Your task to perform on an android device: Go to display settings Image 0: 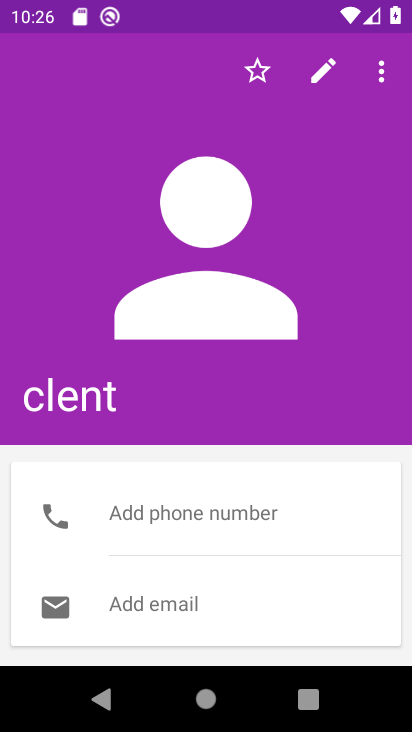
Step 0: press home button
Your task to perform on an android device: Go to display settings Image 1: 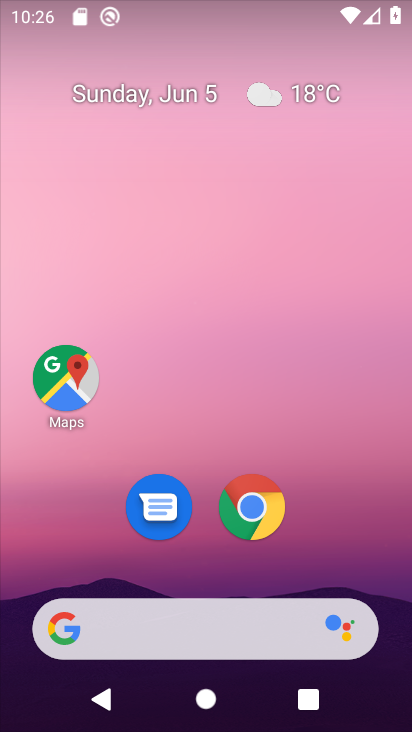
Step 1: drag from (251, 569) to (305, 133)
Your task to perform on an android device: Go to display settings Image 2: 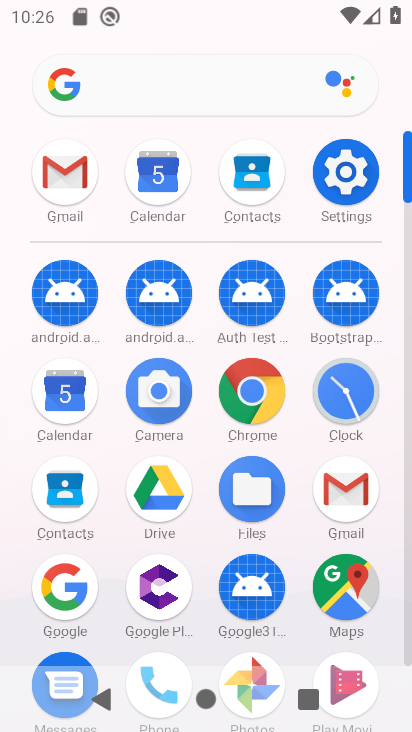
Step 2: click (354, 162)
Your task to perform on an android device: Go to display settings Image 3: 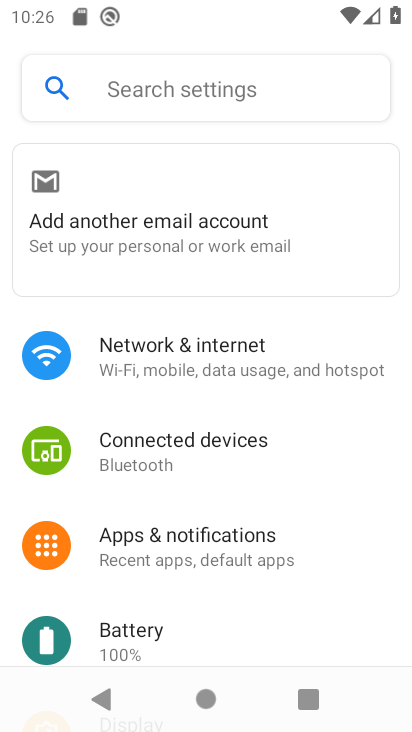
Step 3: drag from (216, 570) to (272, 222)
Your task to perform on an android device: Go to display settings Image 4: 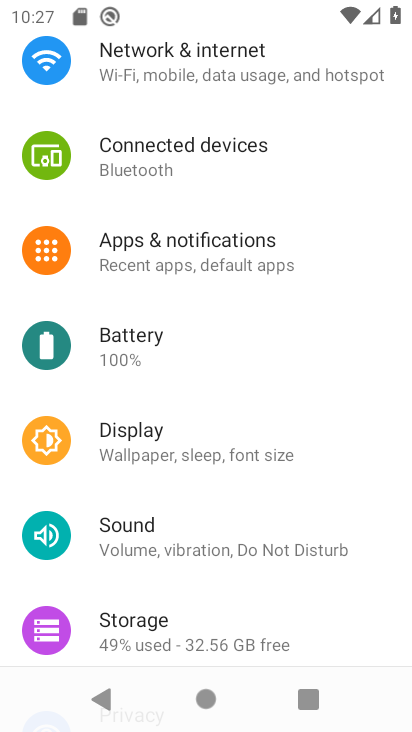
Step 4: click (162, 436)
Your task to perform on an android device: Go to display settings Image 5: 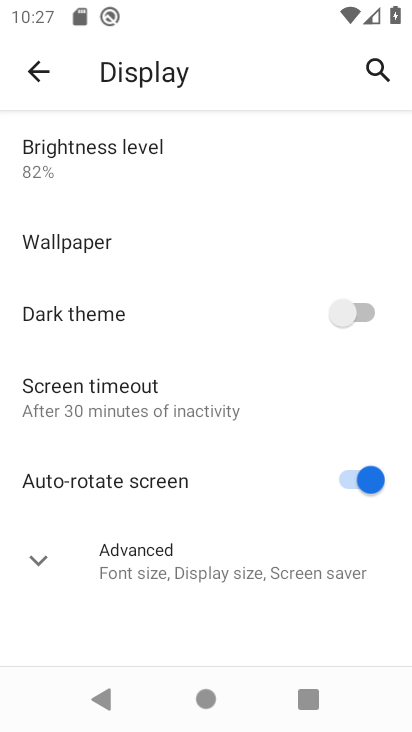
Step 5: task complete